Your task to perform on an android device: Go to Amazon Image 0: 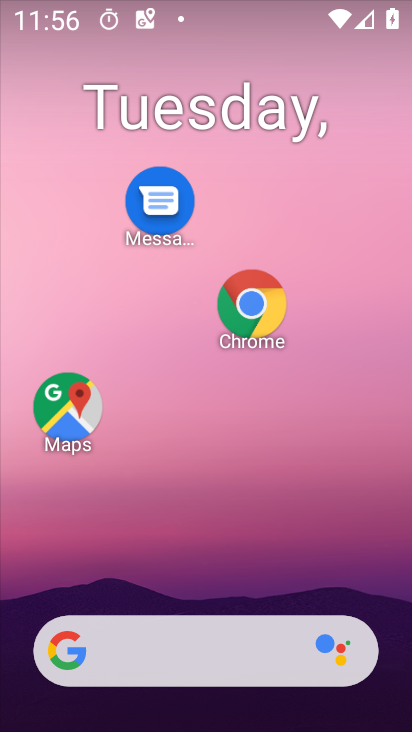
Step 0: drag from (259, 395) to (327, 155)
Your task to perform on an android device: Go to Amazon Image 1: 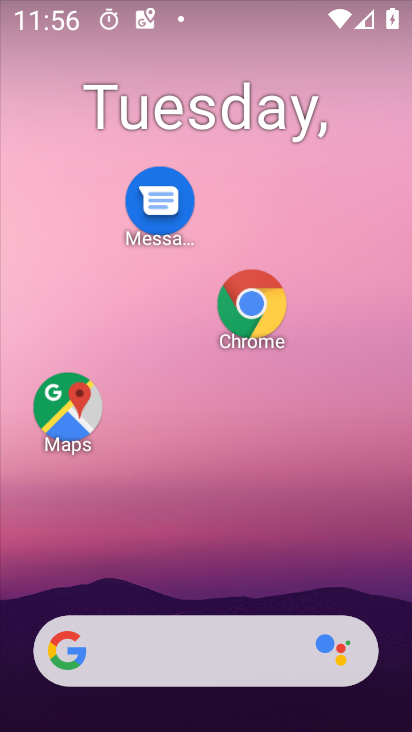
Step 1: drag from (288, 478) to (317, 188)
Your task to perform on an android device: Go to Amazon Image 2: 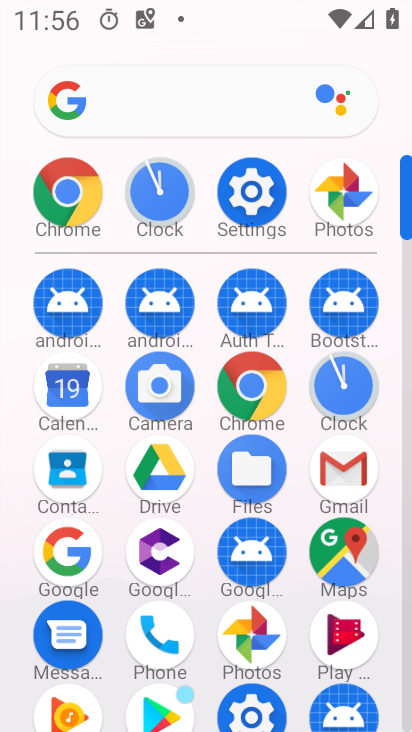
Step 2: click (244, 394)
Your task to perform on an android device: Go to Amazon Image 3: 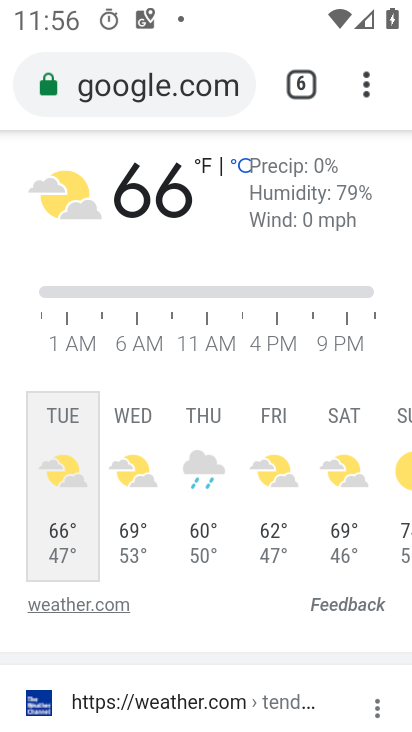
Step 3: click (360, 82)
Your task to perform on an android device: Go to Amazon Image 4: 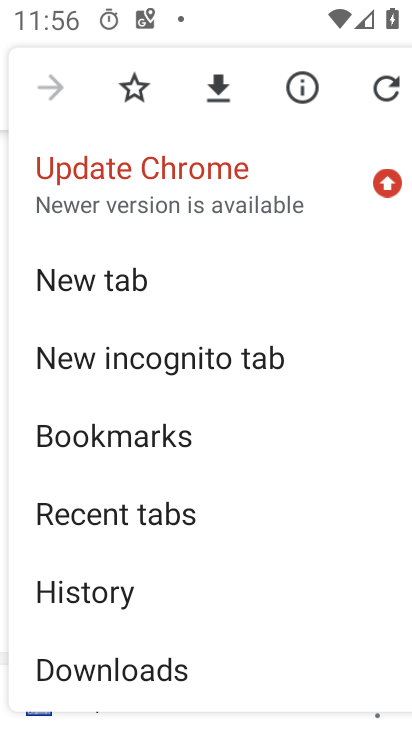
Step 4: click (176, 271)
Your task to perform on an android device: Go to Amazon Image 5: 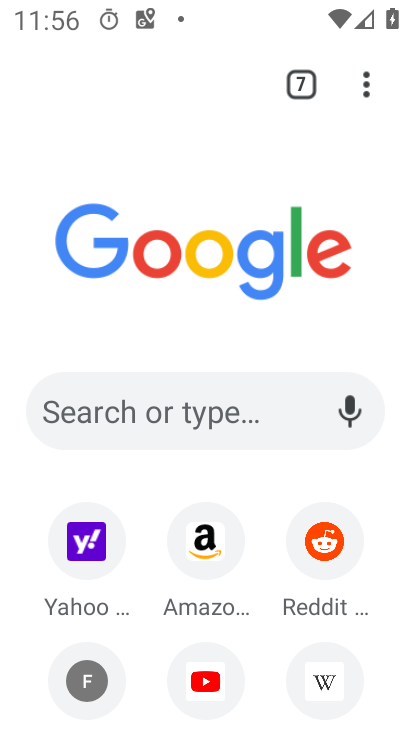
Step 5: click (217, 531)
Your task to perform on an android device: Go to Amazon Image 6: 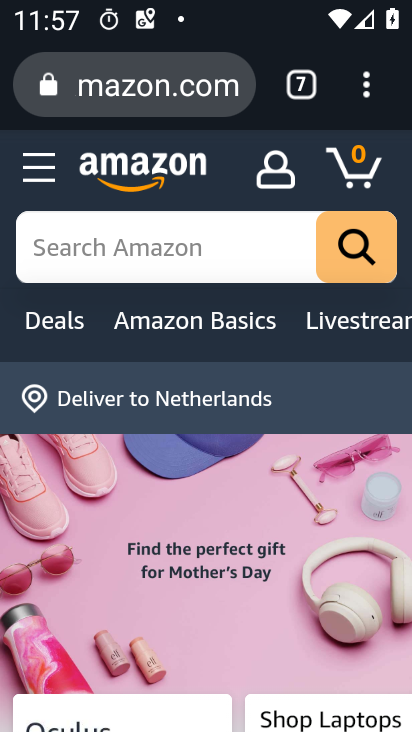
Step 6: task complete